Your task to perform on an android device: turn off location Image 0: 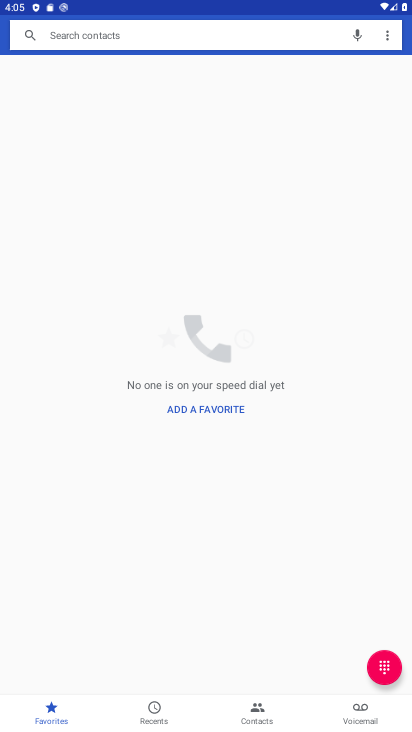
Step 0: press home button
Your task to perform on an android device: turn off location Image 1: 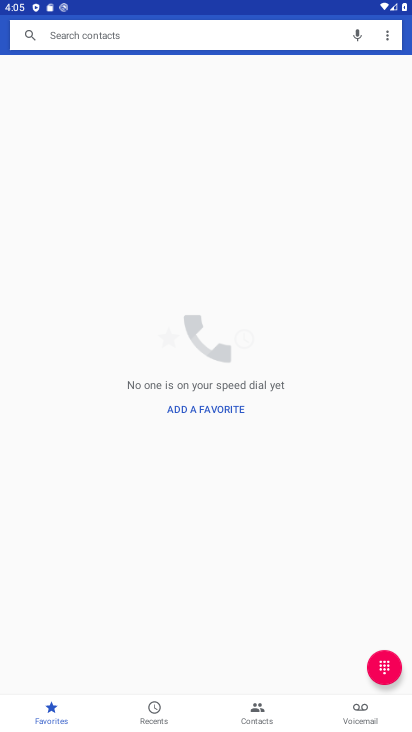
Step 1: press home button
Your task to perform on an android device: turn off location Image 2: 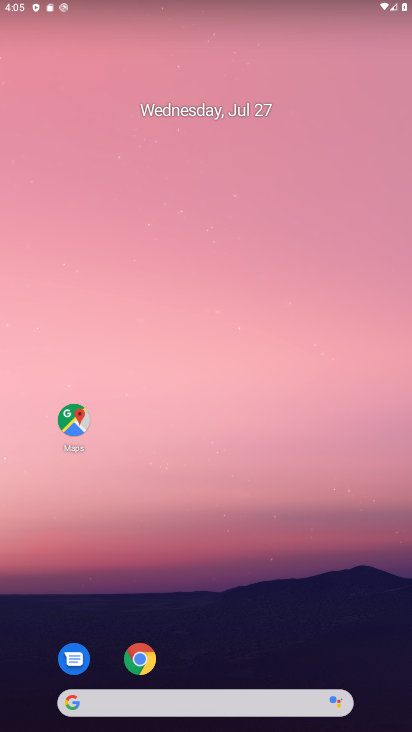
Step 2: drag from (273, 626) to (94, 53)
Your task to perform on an android device: turn off location Image 3: 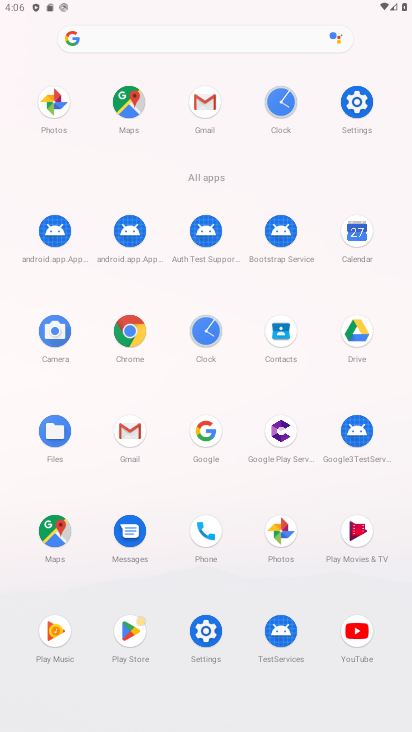
Step 3: click (173, 67)
Your task to perform on an android device: turn off location Image 4: 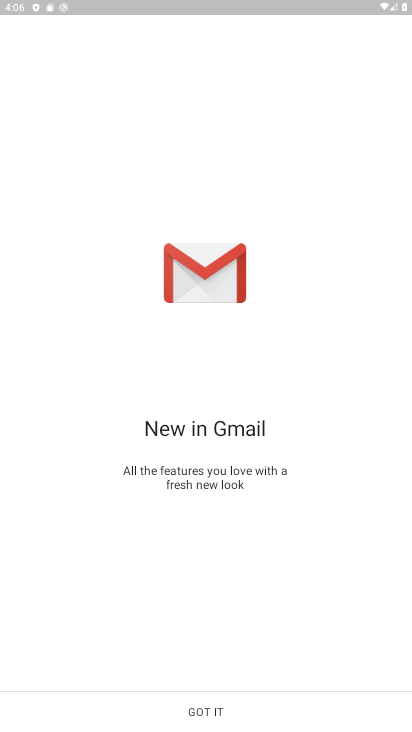
Step 4: press home button
Your task to perform on an android device: turn off location Image 5: 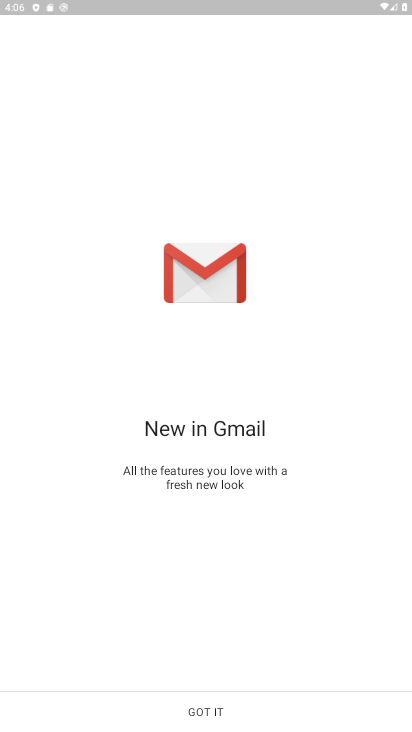
Step 5: drag from (208, 642) to (278, 211)
Your task to perform on an android device: turn off location Image 6: 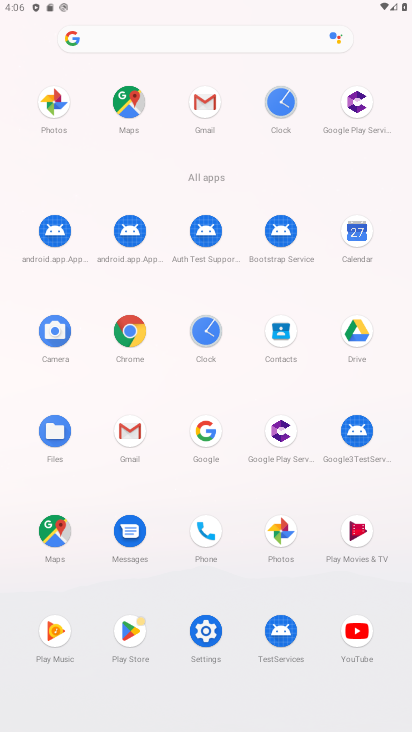
Step 6: click (217, 632)
Your task to perform on an android device: turn off location Image 7: 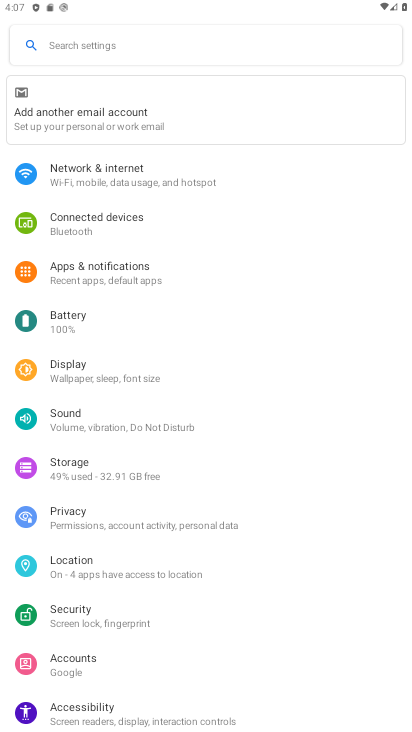
Step 7: click (95, 574)
Your task to perform on an android device: turn off location Image 8: 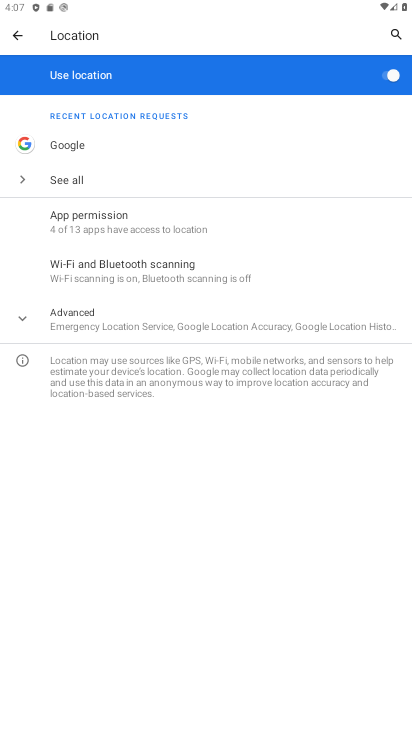
Step 8: click (358, 78)
Your task to perform on an android device: turn off location Image 9: 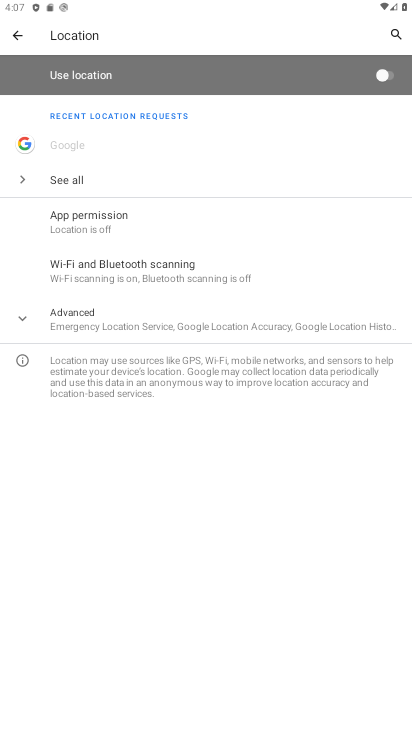
Step 9: task complete